Your task to perform on an android device: Google the capital of Mexico Image 0: 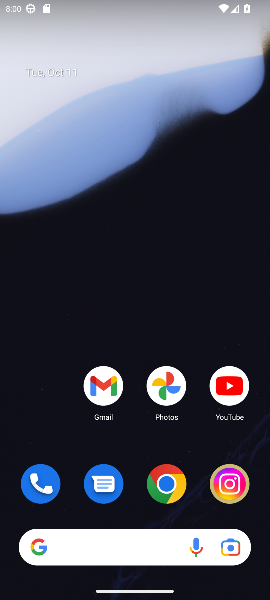
Step 0: click (170, 486)
Your task to perform on an android device: Google the capital of Mexico Image 1: 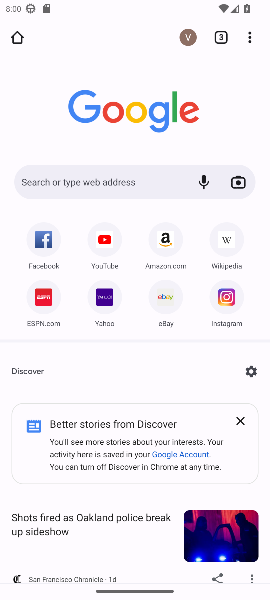
Step 1: click (112, 181)
Your task to perform on an android device: Google the capital of Mexico Image 2: 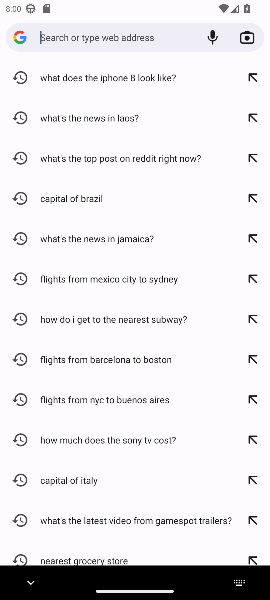
Step 2: type "capital of Mexico"
Your task to perform on an android device: Google the capital of Mexico Image 3: 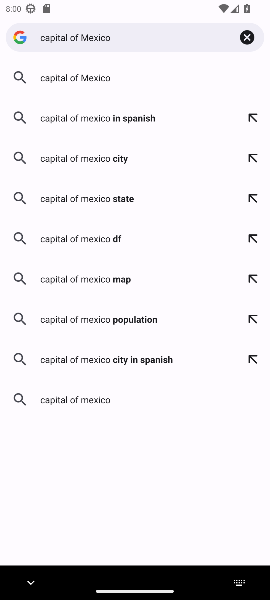
Step 3: click (73, 77)
Your task to perform on an android device: Google the capital of Mexico Image 4: 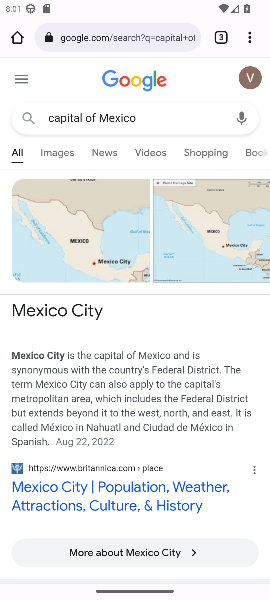
Step 4: task complete